Your task to perform on an android device: Search for Mexican restaurants on Maps Image 0: 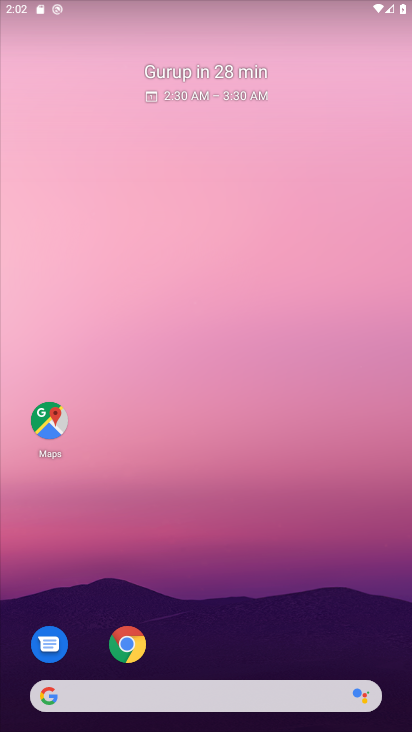
Step 0: drag from (306, 682) to (237, 230)
Your task to perform on an android device: Search for Mexican restaurants on Maps Image 1: 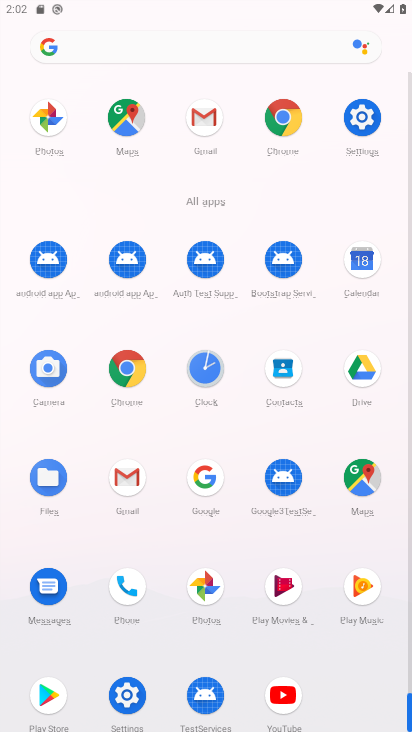
Step 1: click (351, 463)
Your task to perform on an android device: Search for Mexican restaurants on Maps Image 2: 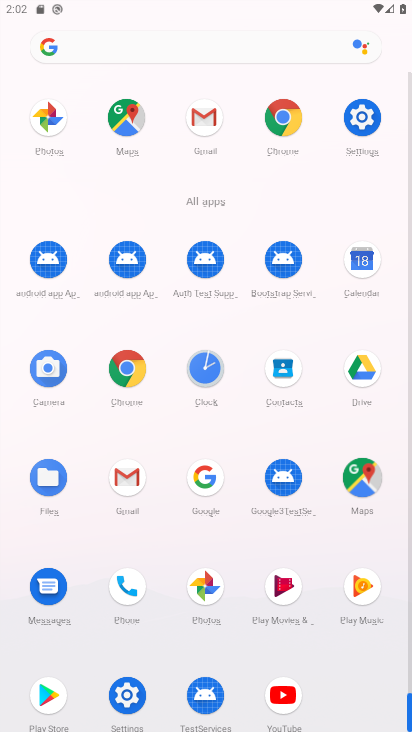
Step 2: click (361, 475)
Your task to perform on an android device: Search for Mexican restaurants on Maps Image 3: 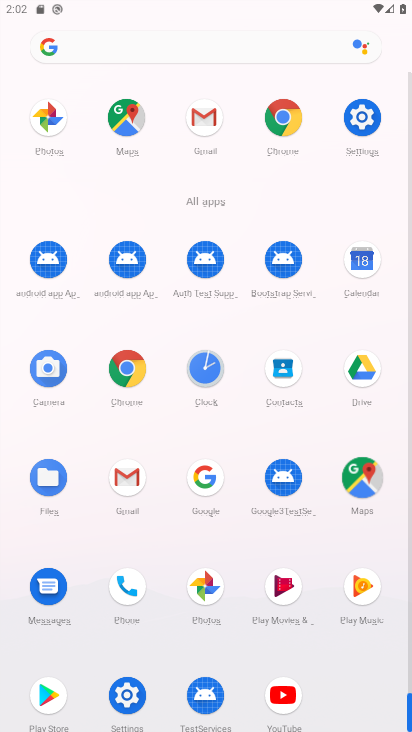
Step 3: click (361, 475)
Your task to perform on an android device: Search for Mexican restaurants on Maps Image 4: 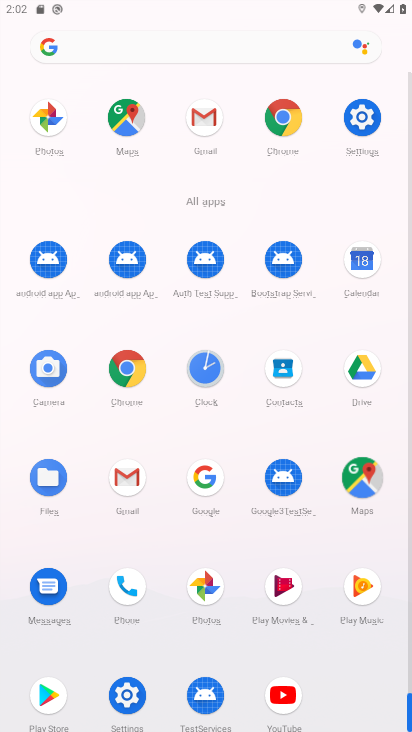
Step 4: click (361, 475)
Your task to perform on an android device: Search for Mexican restaurants on Maps Image 5: 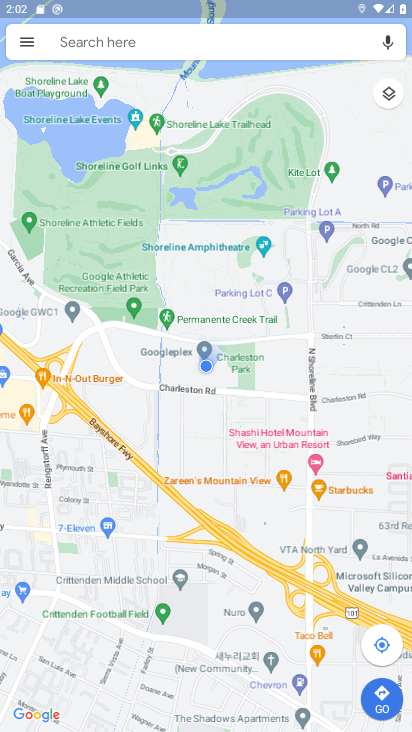
Step 5: click (363, 475)
Your task to perform on an android device: Search for Mexican restaurants on Maps Image 6: 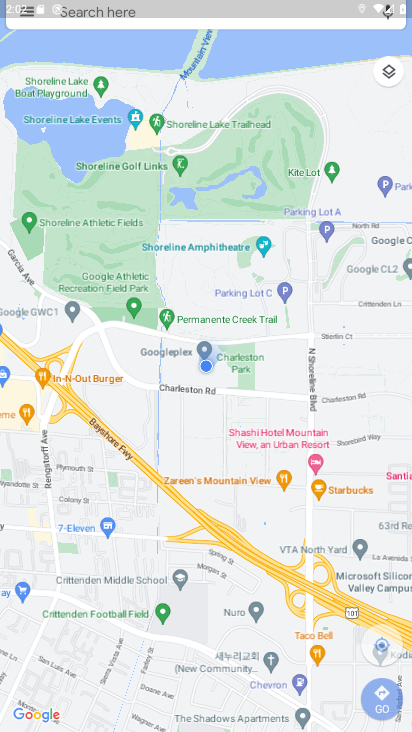
Step 6: click (74, 40)
Your task to perform on an android device: Search for Mexican restaurants on Maps Image 7: 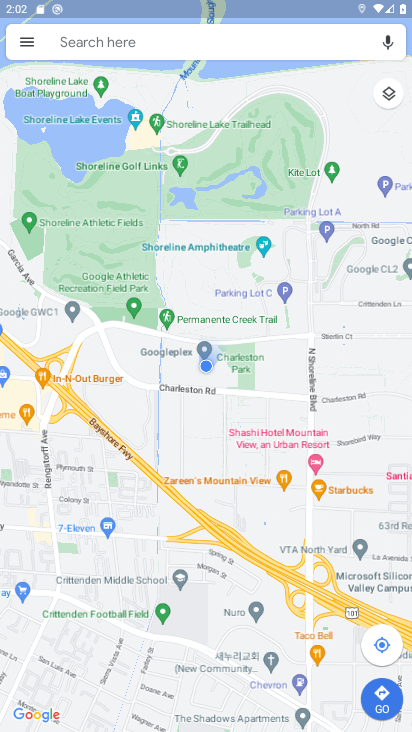
Step 7: click (99, 99)
Your task to perform on an android device: Search for Mexican restaurants on Maps Image 8: 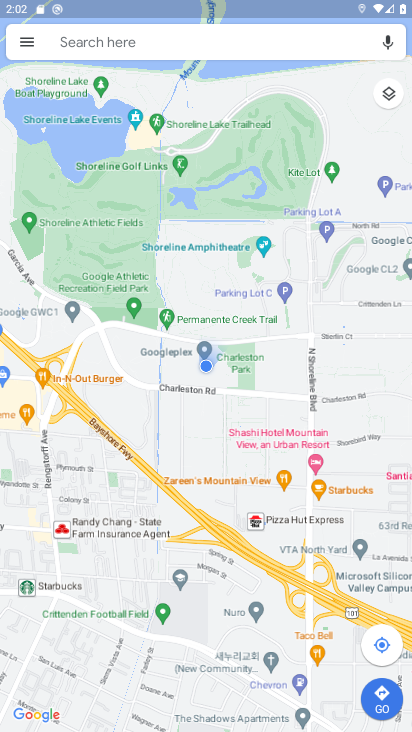
Step 8: click (65, 28)
Your task to perform on an android device: Search for Mexican restaurants on Maps Image 9: 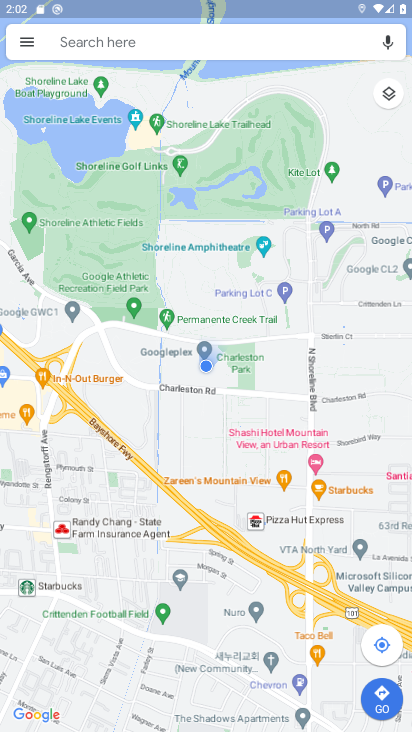
Step 9: click (67, 28)
Your task to perform on an android device: Search for Mexican restaurants on Maps Image 10: 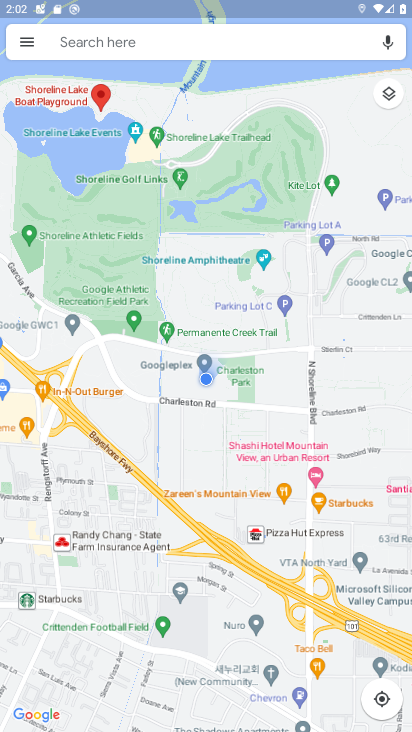
Step 10: click (60, 31)
Your task to perform on an android device: Search for Mexican restaurants on Maps Image 11: 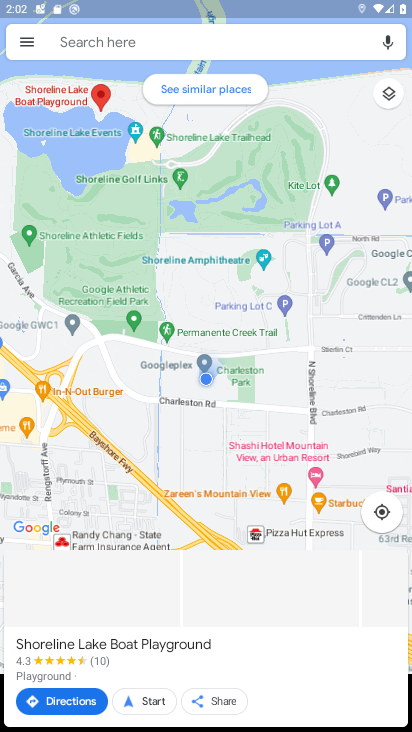
Step 11: click (88, 40)
Your task to perform on an android device: Search for Mexican restaurants on Maps Image 12: 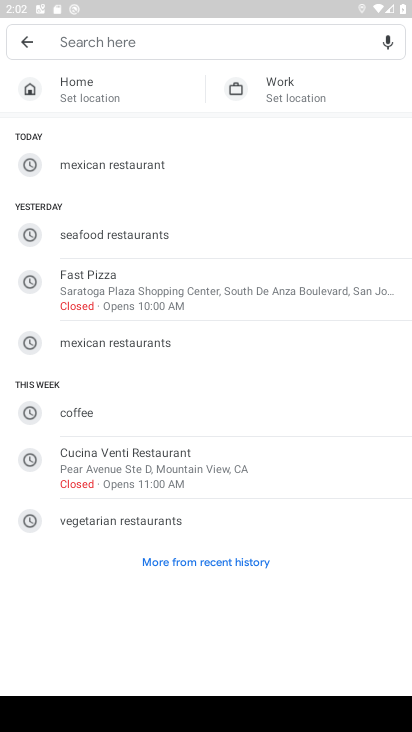
Step 12: click (103, 168)
Your task to perform on an android device: Search for Mexican restaurants on Maps Image 13: 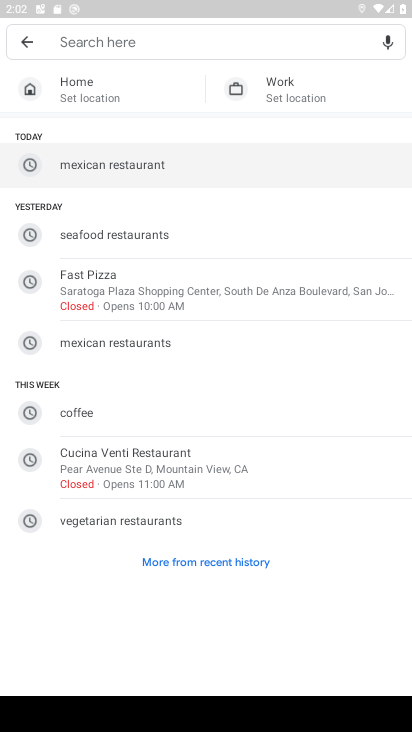
Step 13: click (103, 168)
Your task to perform on an android device: Search for Mexican restaurants on Maps Image 14: 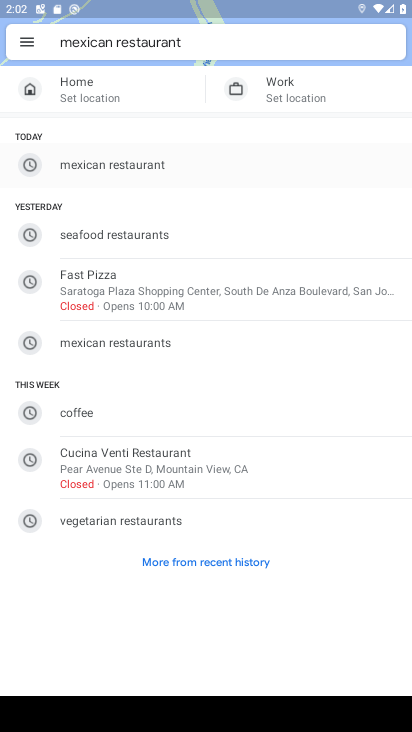
Step 14: click (103, 168)
Your task to perform on an android device: Search for Mexican restaurants on Maps Image 15: 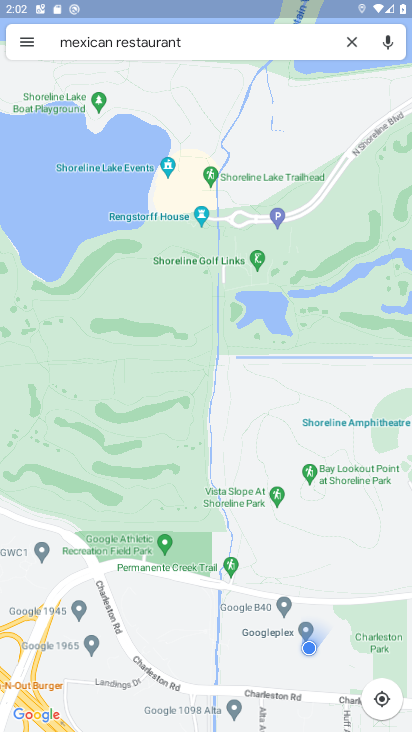
Step 15: task complete